Your task to perform on an android device: turn off javascript in the chrome app Image 0: 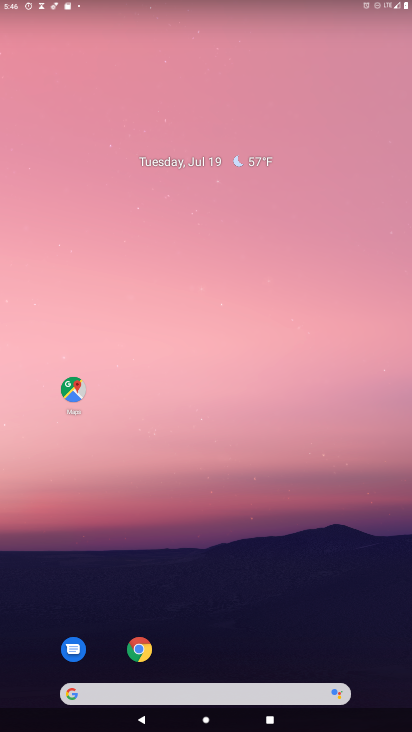
Step 0: click (137, 656)
Your task to perform on an android device: turn off javascript in the chrome app Image 1: 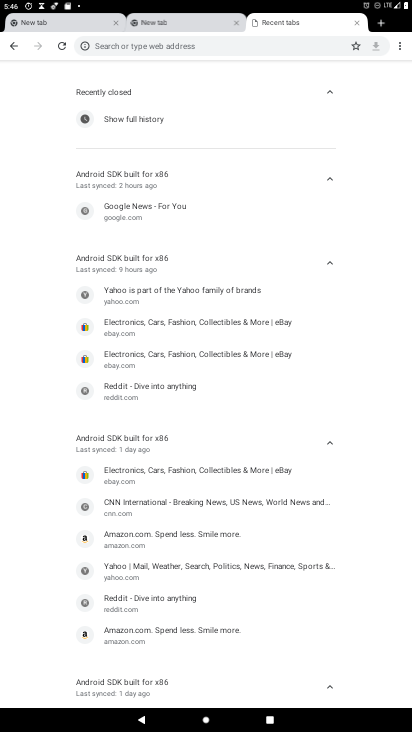
Step 1: click (137, 656)
Your task to perform on an android device: turn off javascript in the chrome app Image 2: 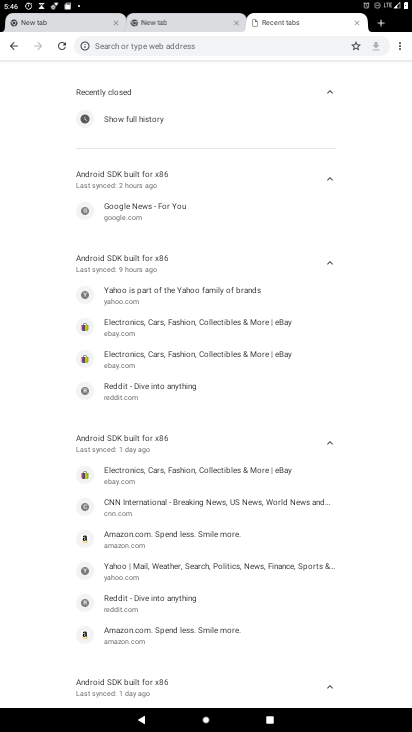
Step 2: click (397, 47)
Your task to perform on an android device: turn off javascript in the chrome app Image 3: 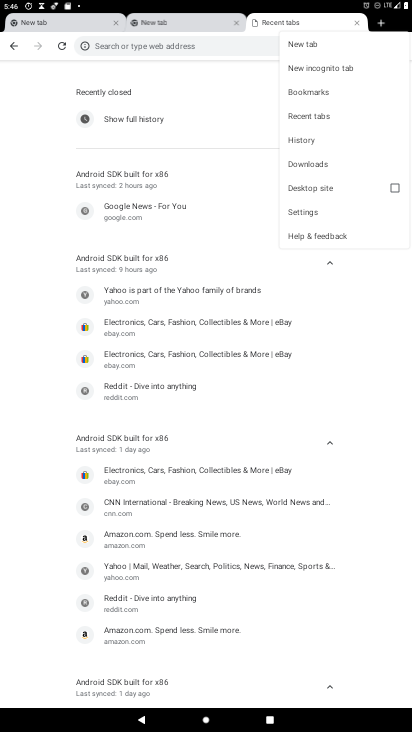
Step 3: click (308, 215)
Your task to perform on an android device: turn off javascript in the chrome app Image 4: 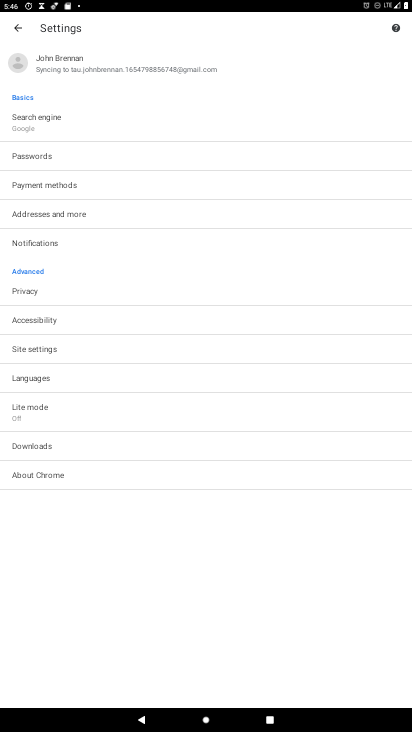
Step 4: click (33, 351)
Your task to perform on an android device: turn off javascript in the chrome app Image 5: 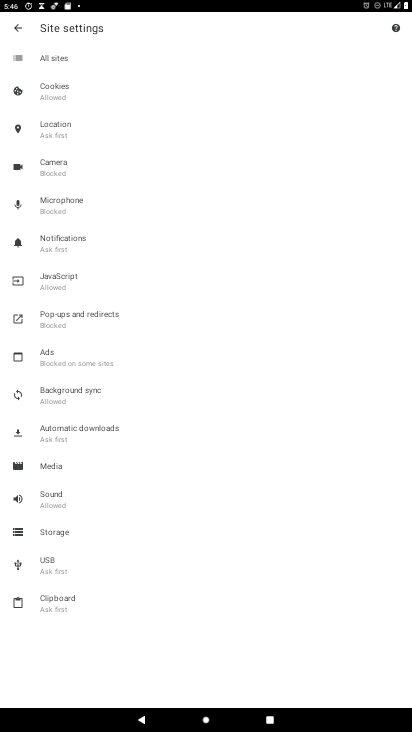
Step 5: click (62, 290)
Your task to perform on an android device: turn off javascript in the chrome app Image 6: 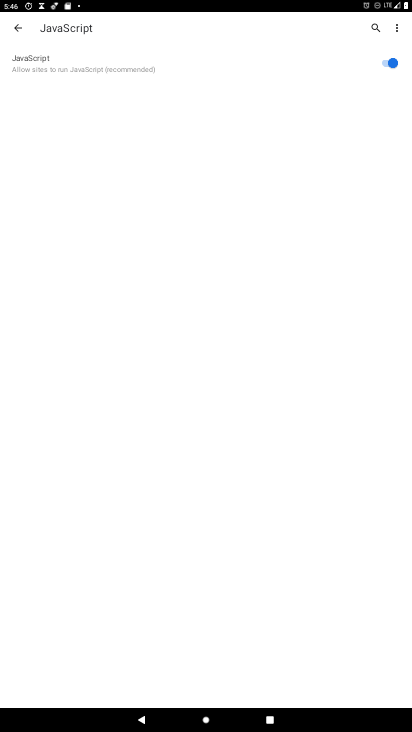
Step 6: click (390, 58)
Your task to perform on an android device: turn off javascript in the chrome app Image 7: 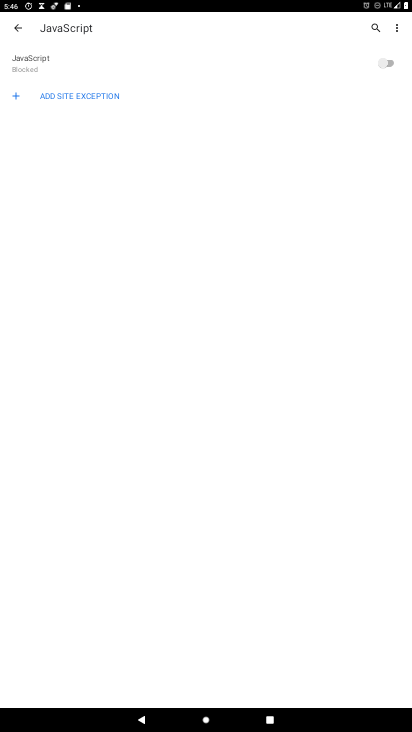
Step 7: task complete